Your task to perform on an android device: add a label to a message in the gmail app Image 0: 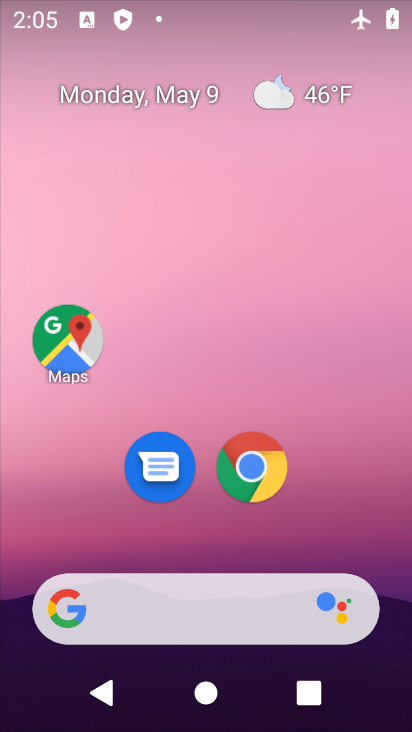
Step 0: drag from (232, 654) to (385, 142)
Your task to perform on an android device: add a label to a message in the gmail app Image 1: 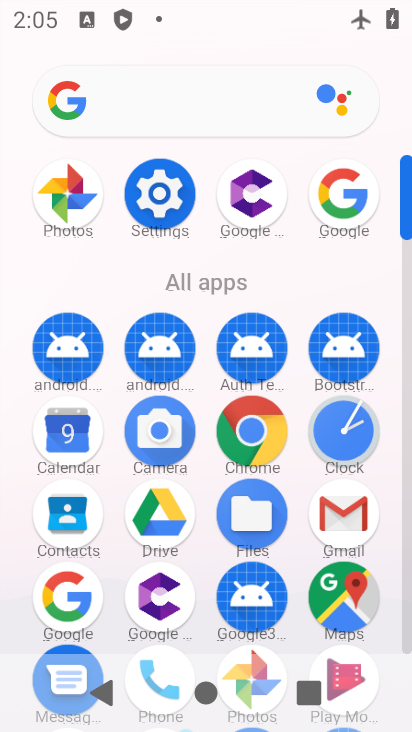
Step 1: click (332, 524)
Your task to perform on an android device: add a label to a message in the gmail app Image 2: 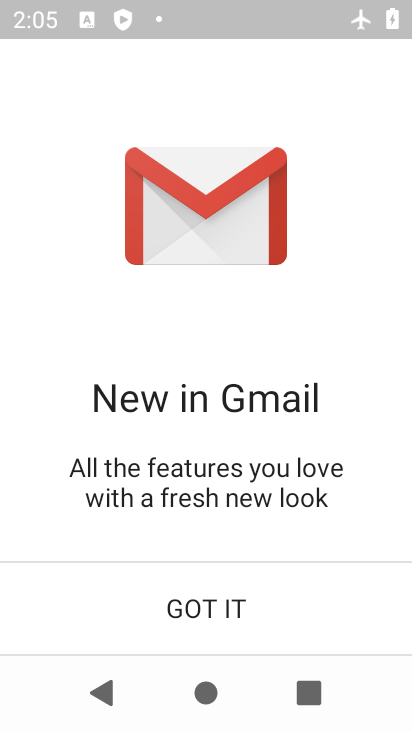
Step 2: click (237, 594)
Your task to perform on an android device: add a label to a message in the gmail app Image 3: 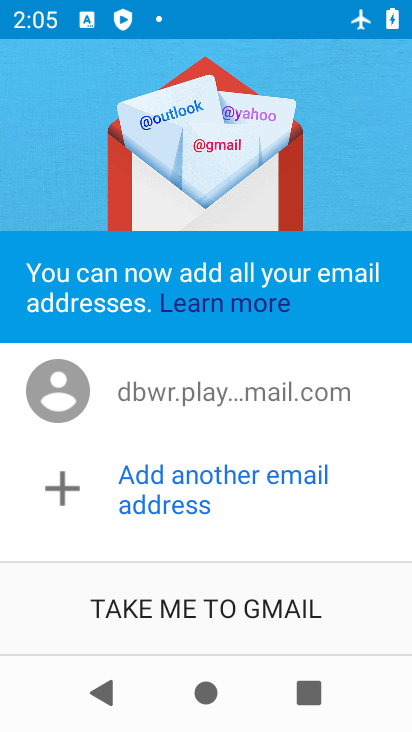
Step 3: click (237, 594)
Your task to perform on an android device: add a label to a message in the gmail app Image 4: 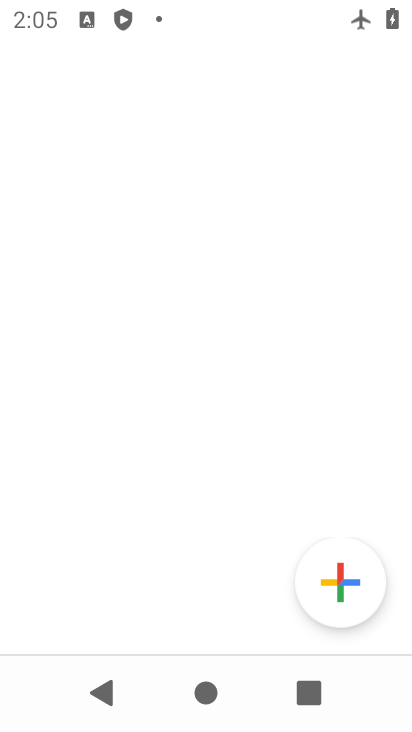
Step 4: click (237, 594)
Your task to perform on an android device: add a label to a message in the gmail app Image 5: 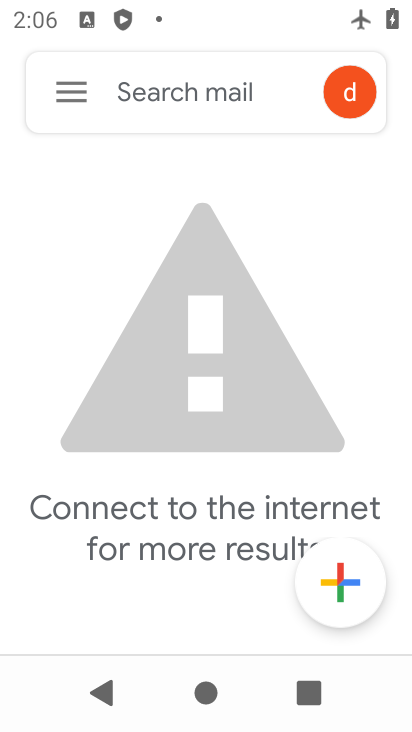
Step 5: click (84, 101)
Your task to perform on an android device: add a label to a message in the gmail app Image 6: 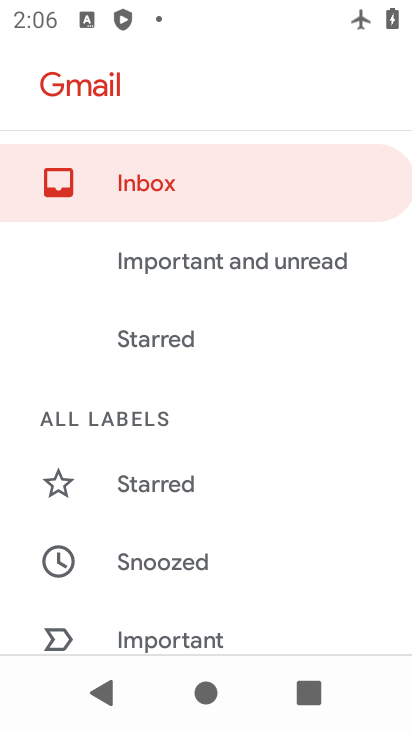
Step 6: drag from (196, 527) to (264, 331)
Your task to perform on an android device: add a label to a message in the gmail app Image 7: 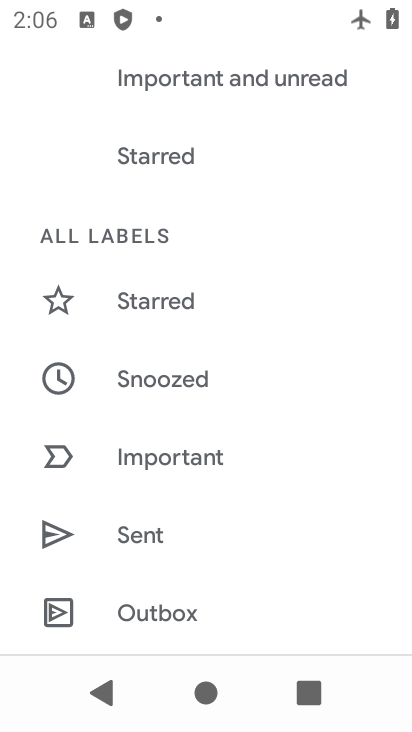
Step 7: drag from (231, 507) to (274, 407)
Your task to perform on an android device: add a label to a message in the gmail app Image 8: 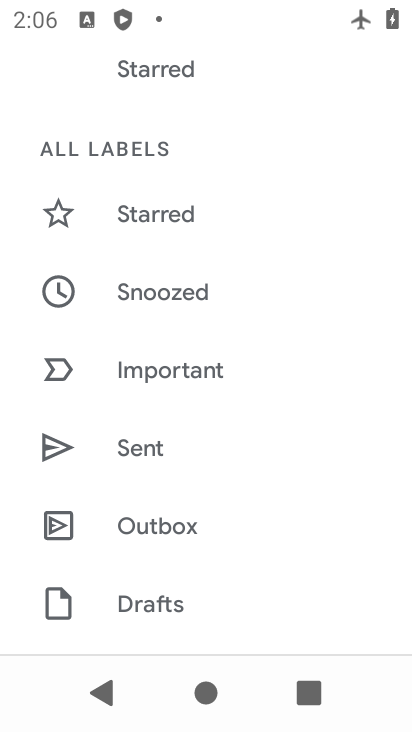
Step 8: drag from (204, 544) to (254, 243)
Your task to perform on an android device: add a label to a message in the gmail app Image 9: 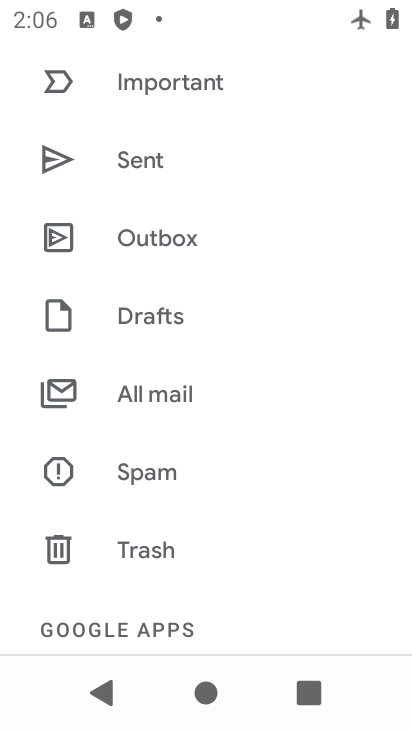
Step 9: click (193, 412)
Your task to perform on an android device: add a label to a message in the gmail app Image 10: 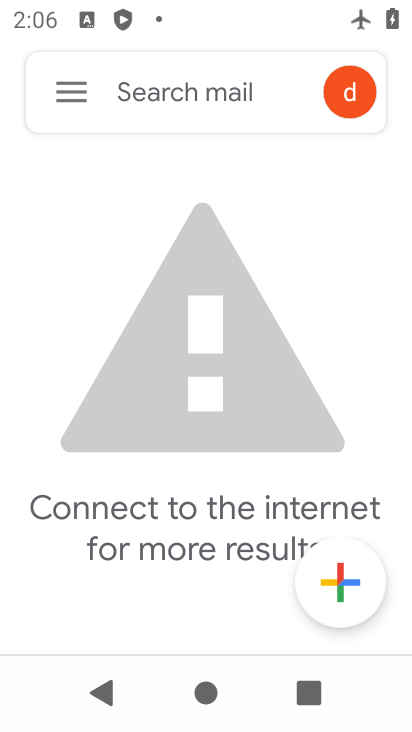
Step 10: click (86, 87)
Your task to perform on an android device: add a label to a message in the gmail app Image 11: 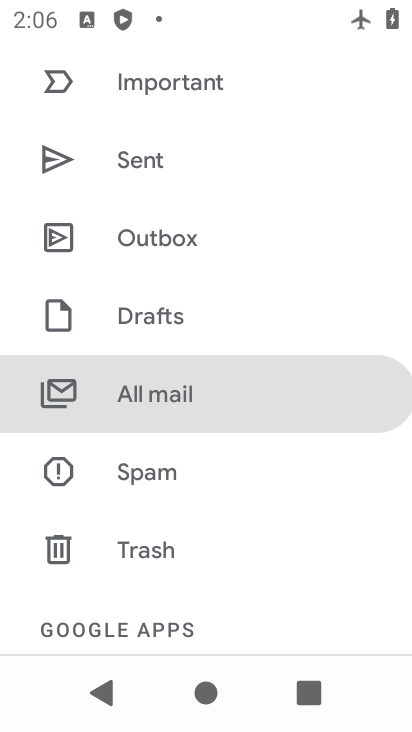
Step 11: task complete